Your task to perform on an android device: turn off improve location accuracy Image 0: 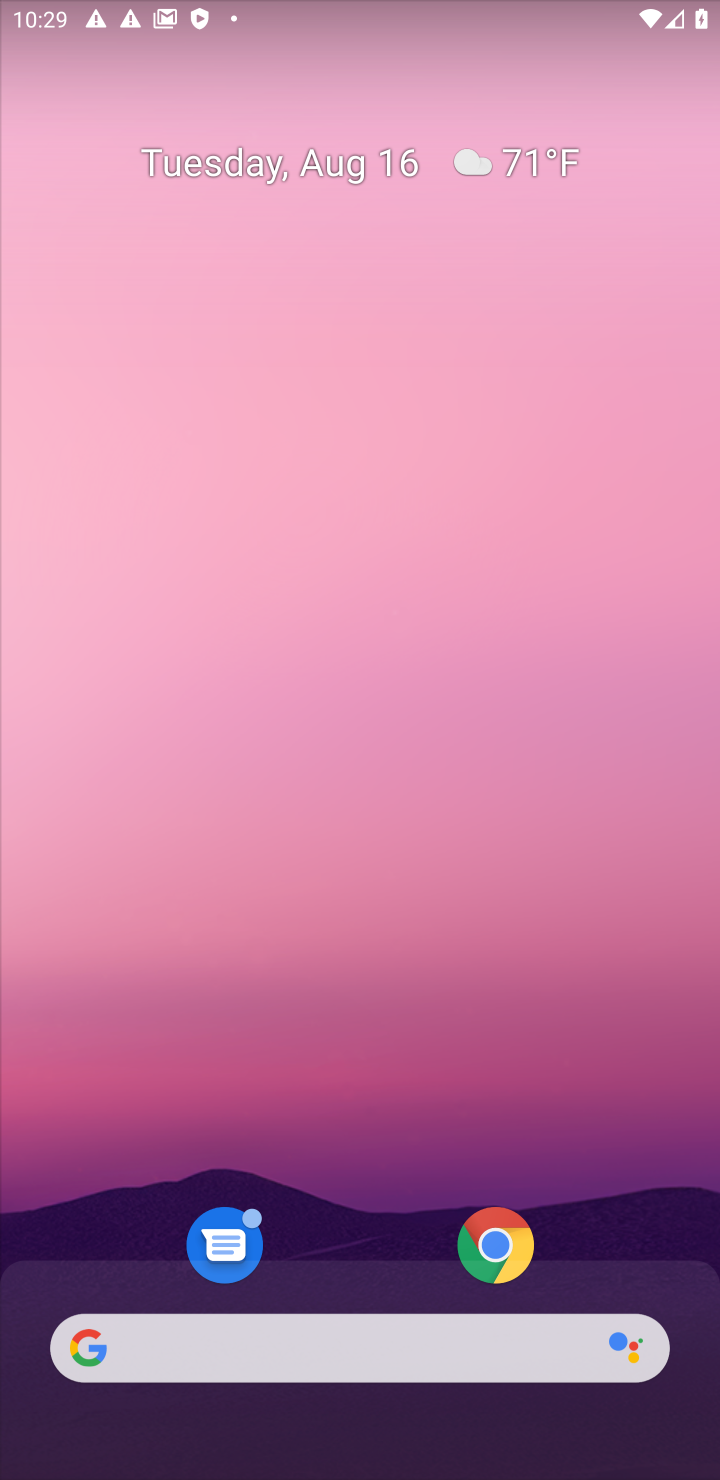
Step 0: drag from (659, 1223) to (553, 395)
Your task to perform on an android device: turn off improve location accuracy Image 1: 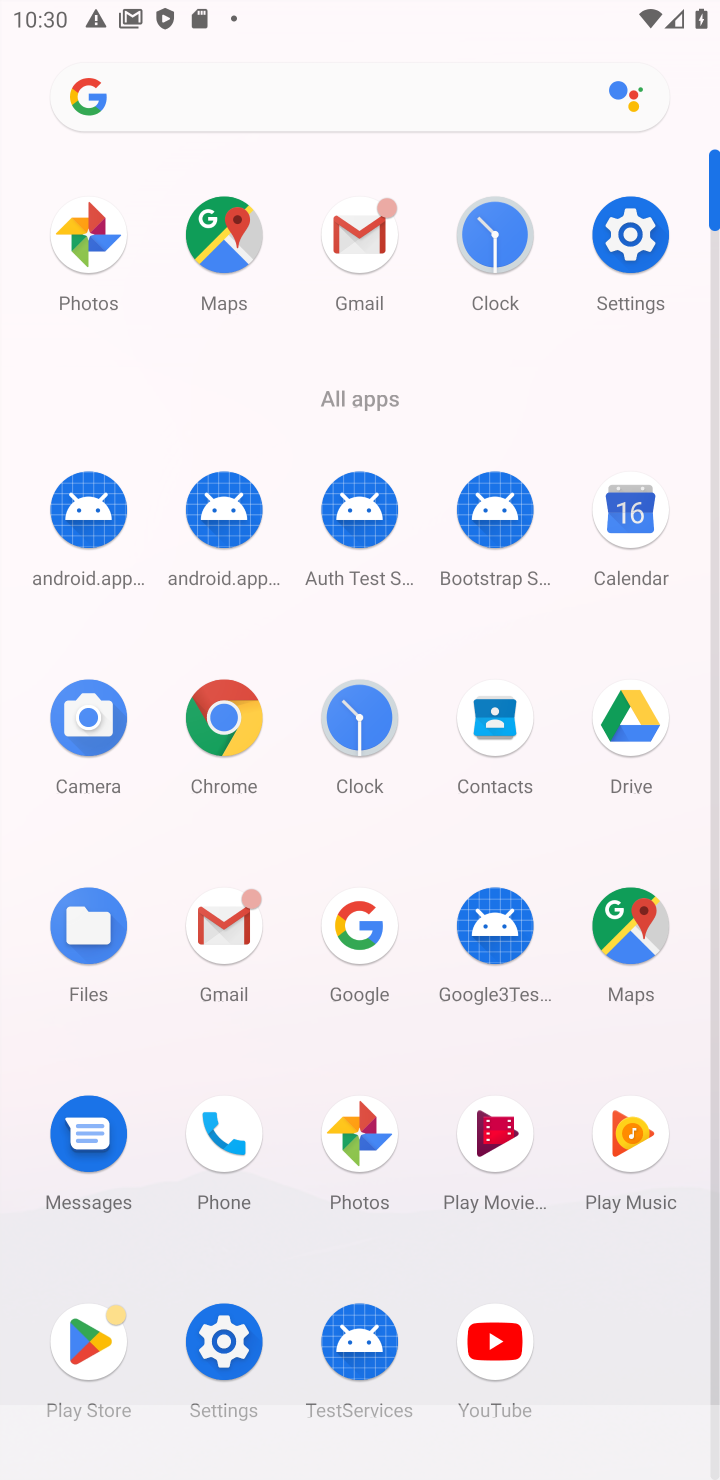
Step 1: click (613, 247)
Your task to perform on an android device: turn off improve location accuracy Image 2: 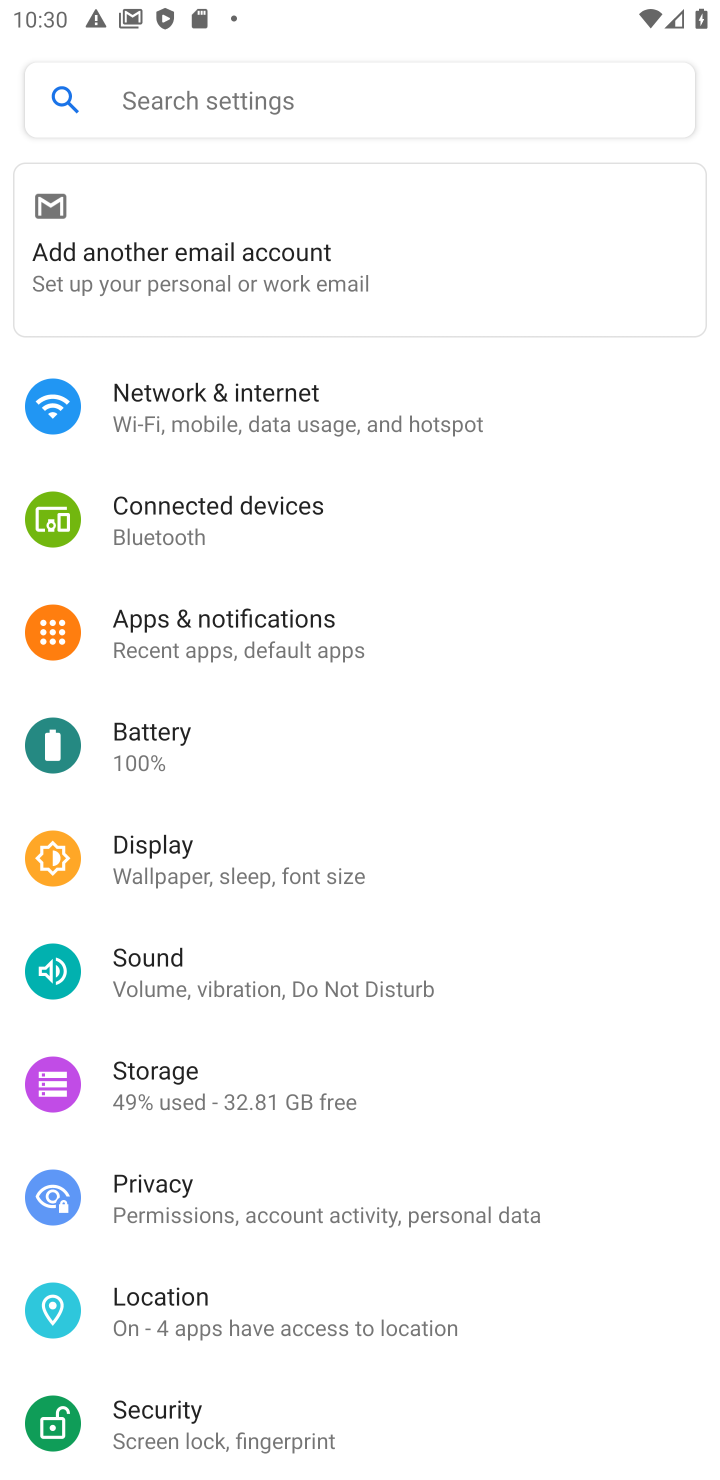
Step 2: click (237, 1316)
Your task to perform on an android device: turn off improve location accuracy Image 3: 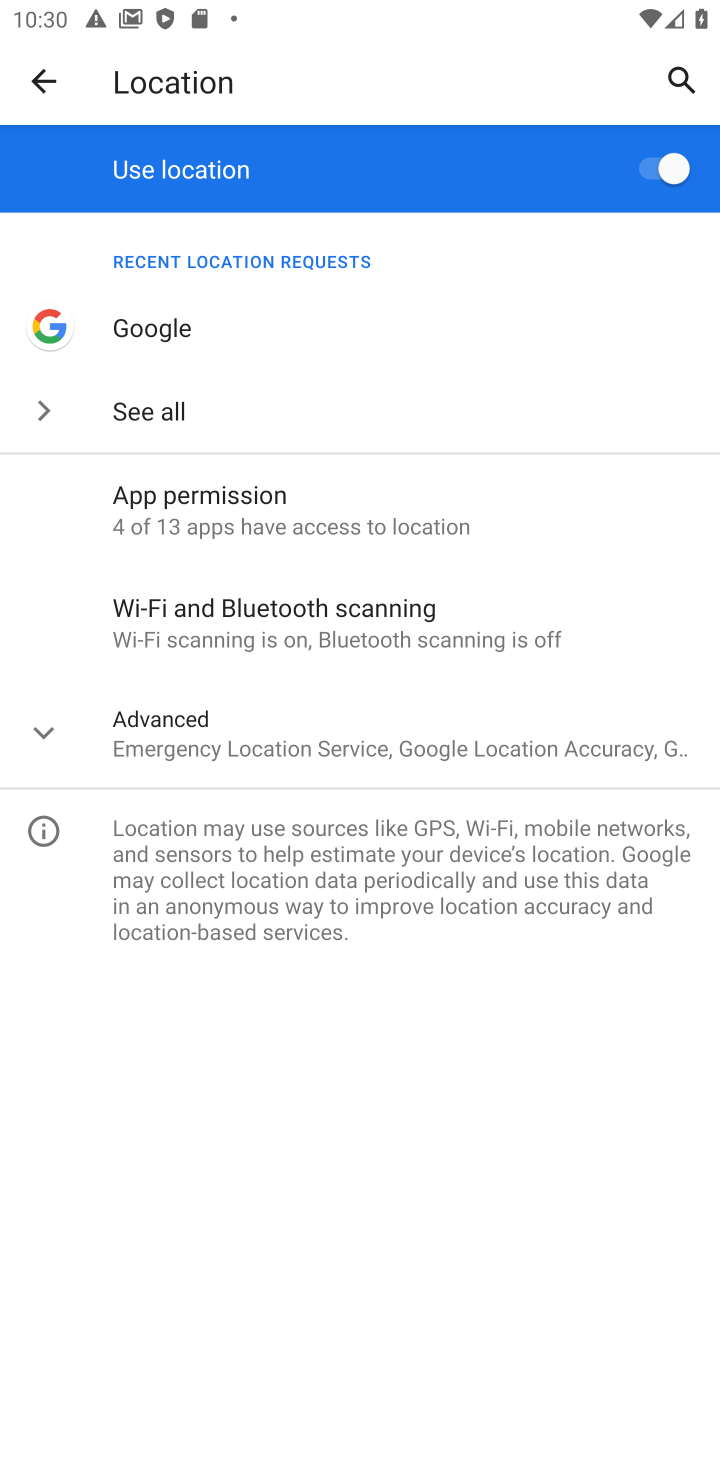
Step 3: click (254, 734)
Your task to perform on an android device: turn off improve location accuracy Image 4: 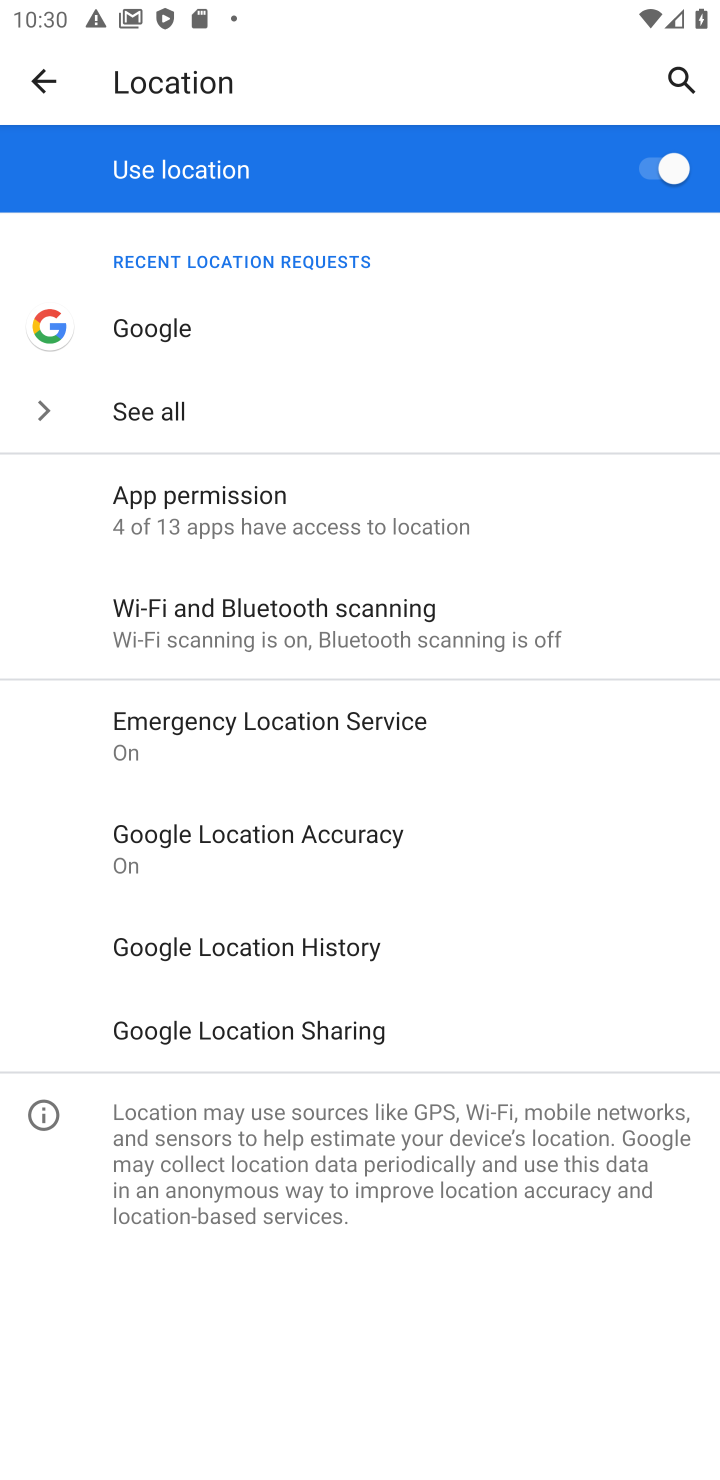
Step 4: click (288, 835)
Your task to perform on an android device: turn off improve location accuracy Image 5: 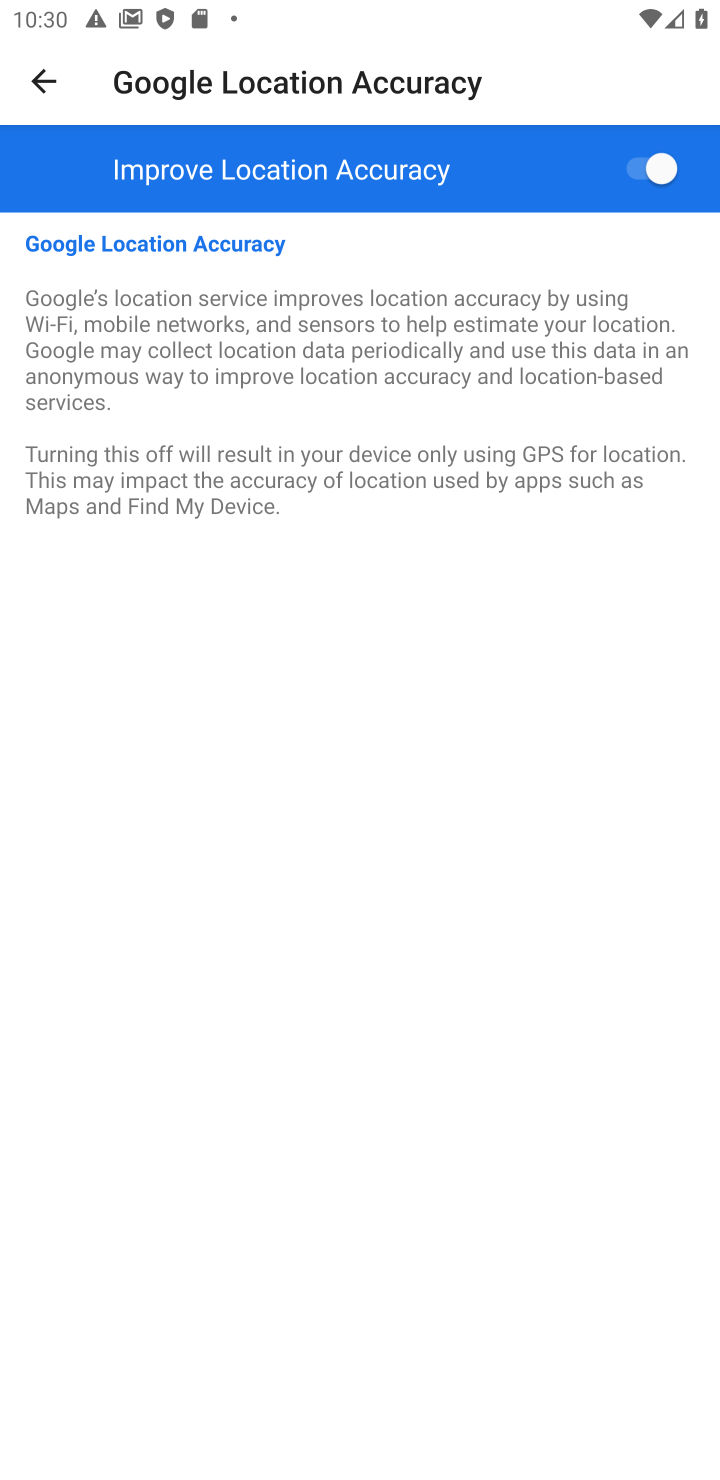
Step 5: click (658, 154)
Your task to perform on an android device: turn off improve location accuracy Image 6: 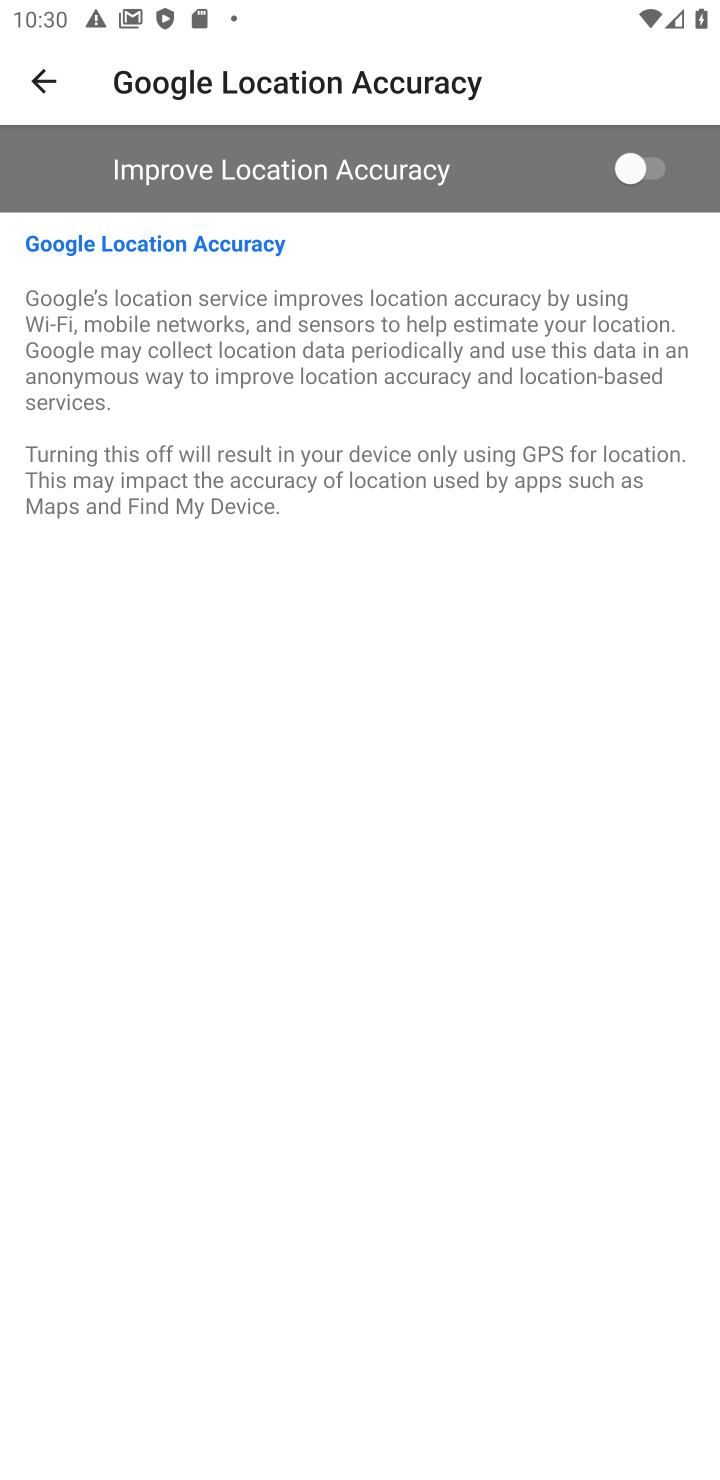
Step 6: task complete